Your task to perform on an android device: turn off data saver in the chrome app Image 0: 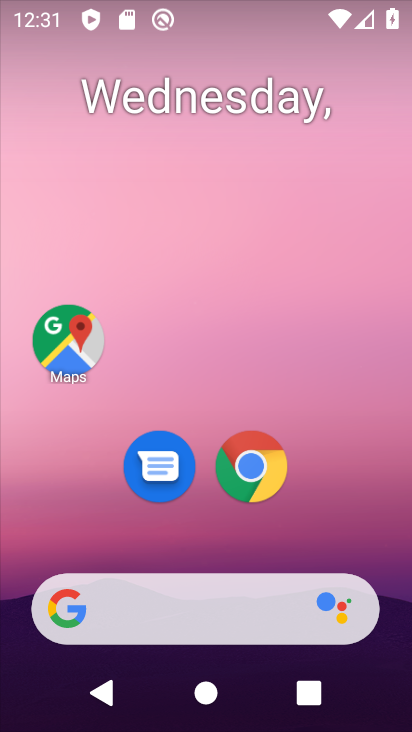
Step 0: press home button
Your task to perform on an android device: turn off data saver in the chrome app Image 1: 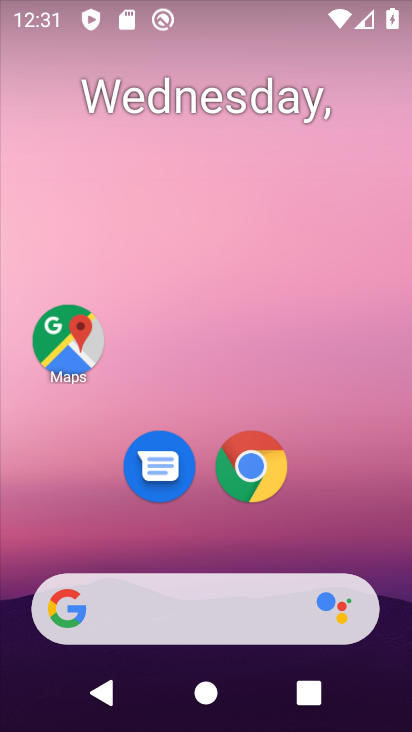
Step 1: drag from (363, 516) to (217, 122)
Your task to perform on an android device: turn off data saver in the chrome app Image 2: 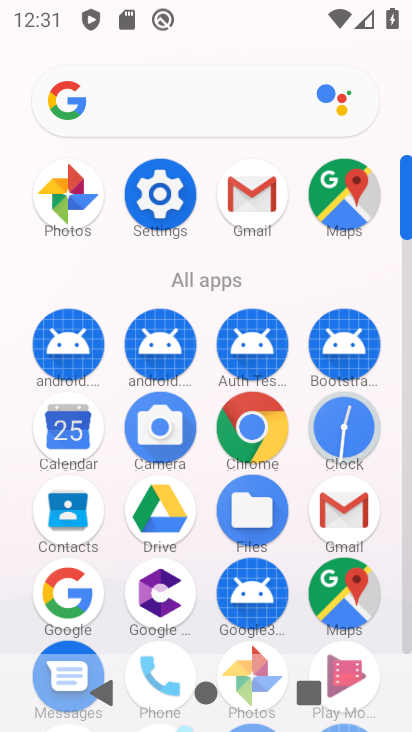
Step 2: click (401, 644)
Your task to perform on an android device: turn off data saver in the chrome app Image 3: 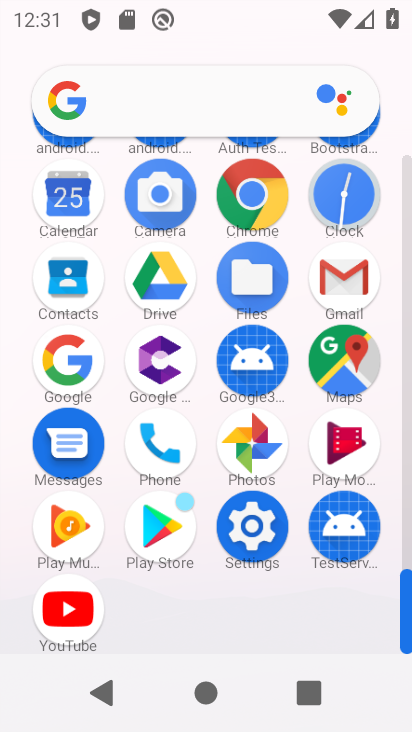
Step 3: click (229, 180)
Your task to perform on an android device: turn off data saver in the chrome app Image 4: 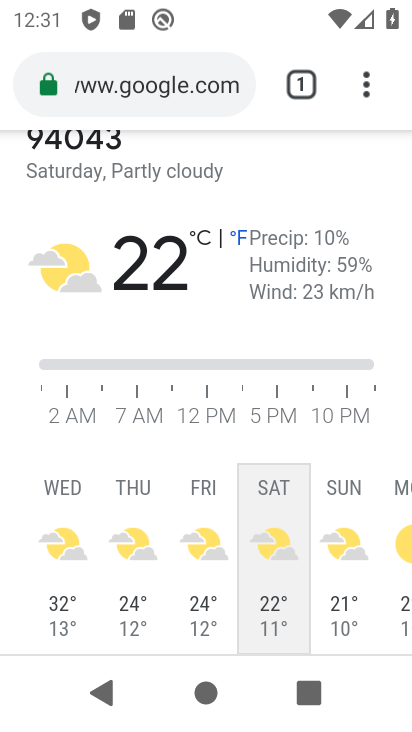
Step 4: click (176, 86)
Your task to perform on an android device: turn off data saver in the chrome app Image 5: 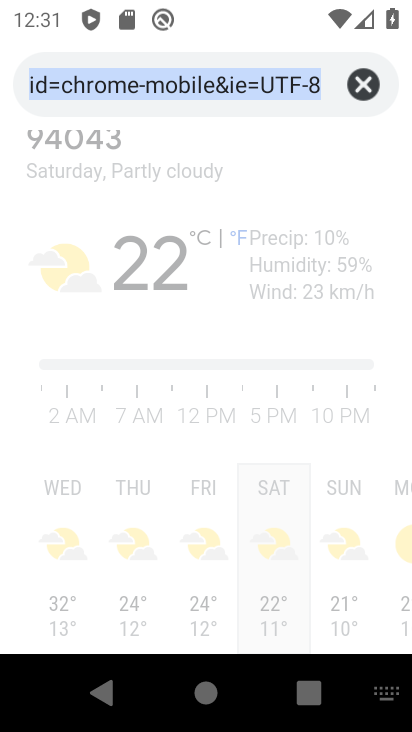
Step 5: click (350, 82)
Your task to perform on an android device: turn off data saver in the chrome app Image 6: 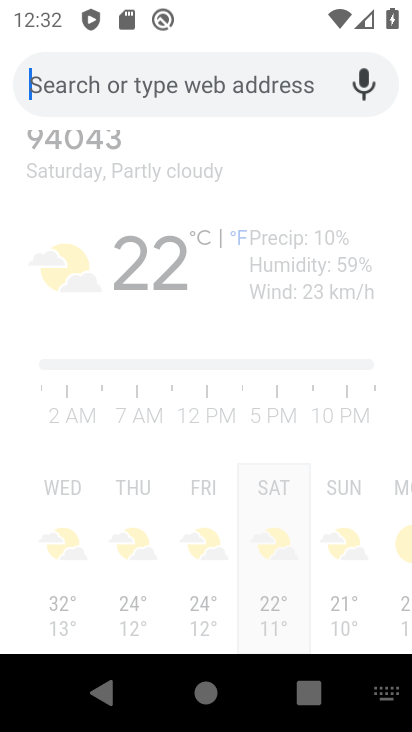
Step 6: click (121, 483)
Your task to perform on an android device: turn off data saver in the chrome app Image 7: 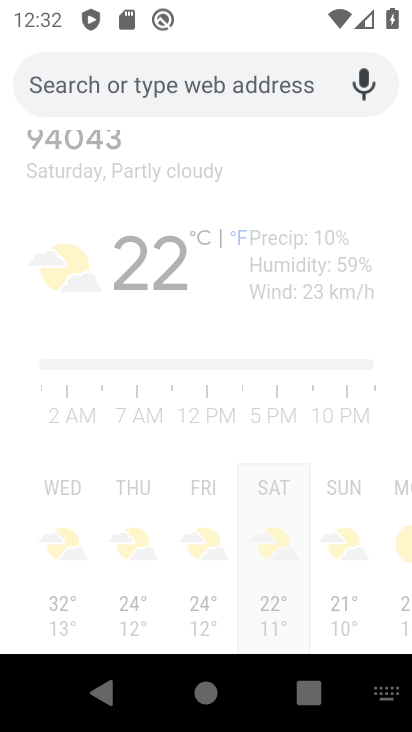
Step 7: drag from (410, 259) to (121, 483)
Your task to perform on an android device: turn off data saver in the chrome app Image 8: 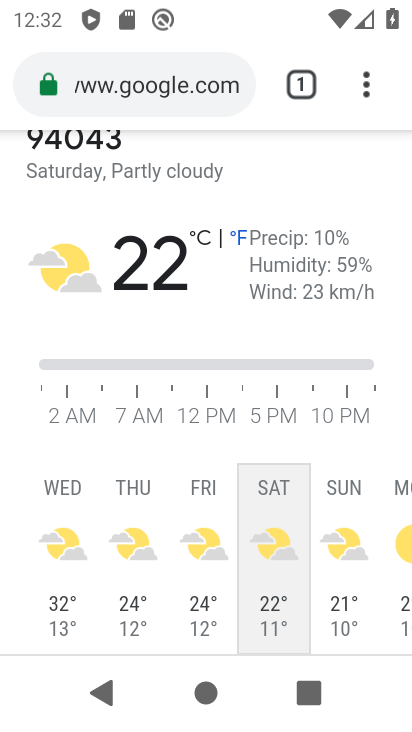
Step 8: click (363, 83)
Your task to perform on an android device: turn off data saver in the chrome app Image 9: 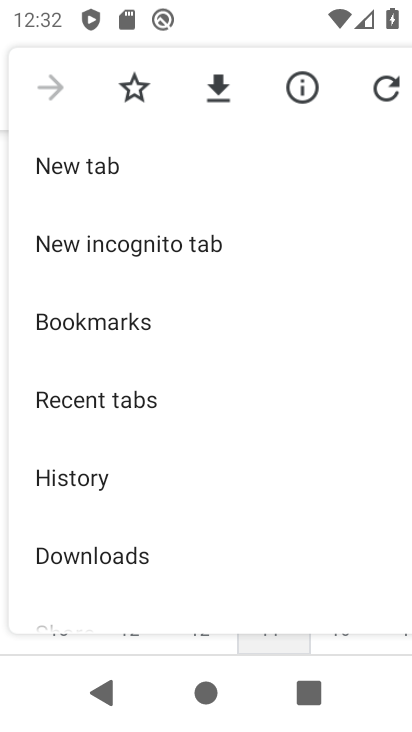
Step 9: drag from (301, 485) to (183, 164)
Your task to perform on an android device: turn off data saver in the chrome app Image 10: 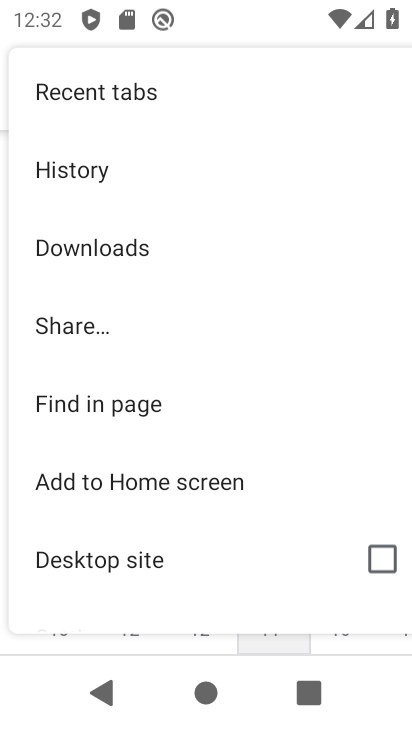
Step 10: drag from (85, 485) to (61, 318)
Your task to perform on an android device: turn off data saver in the chrome app Image 11: 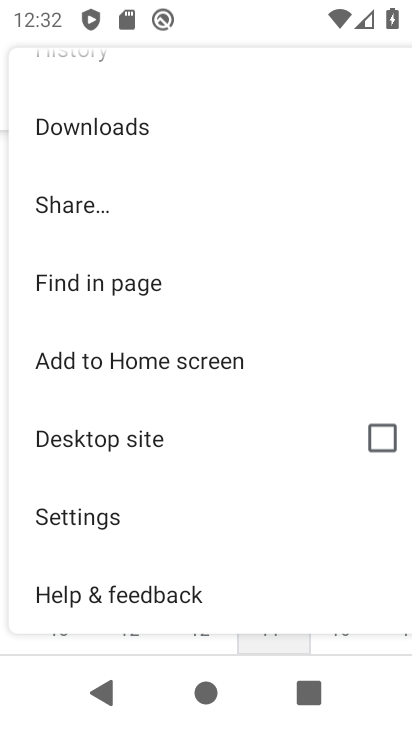
Step 11: drag from (105, 445) to (103, 301)
Your task to perform on an android device: turn off data saver in the chrome app Image 12: 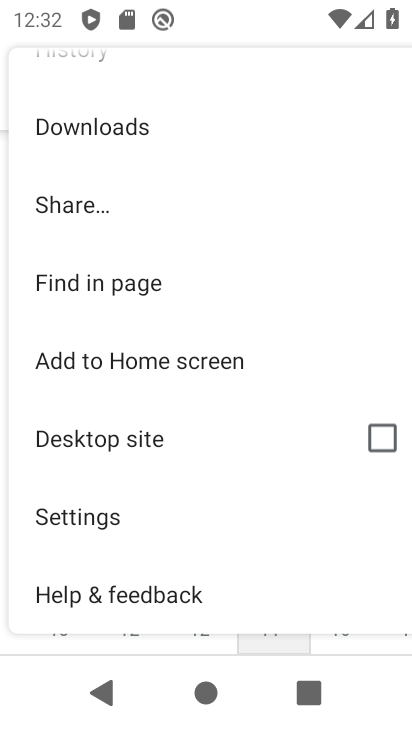
Step 12: click (66, 508)
Your task to perform on an android device: turn off data saver in the chrome app Image 13: 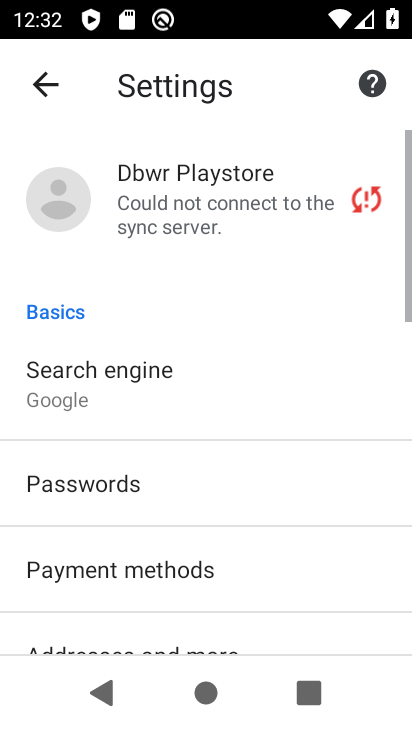
Step 13: drag from (66, 508) to (17, 189)
Your task to perform on an android device: turn off data saver in the chrome app Image 14: 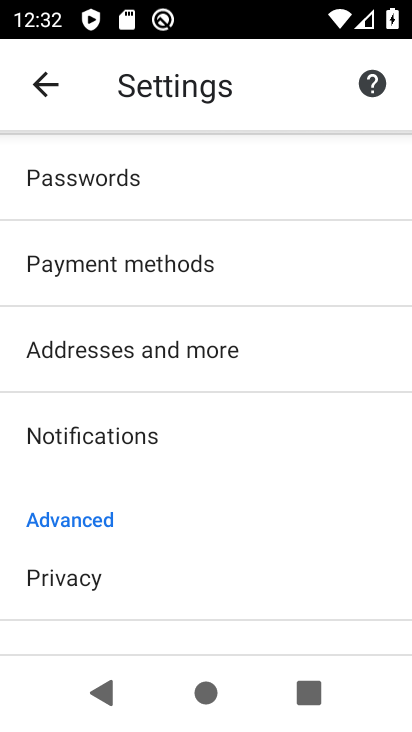
Step 14: drag from (106, 443) to (116, 224)
Your task to perform on an android device: turn off data saver in the chrome app Image 15: 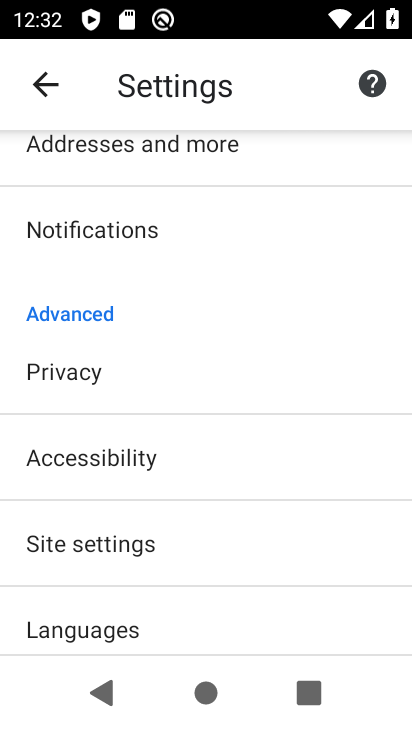
Step 15: drag from (182, 475) to (162, 291)
Your task to perform on an android device: turn off data saver in the chrome app Image 16: 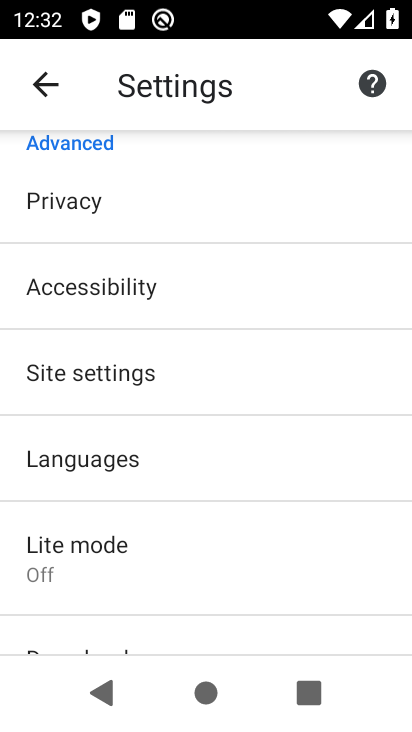
Step 16: click (110, 548)
Your task to perform on an android device: turn off data saver in the chrome app Image 17: 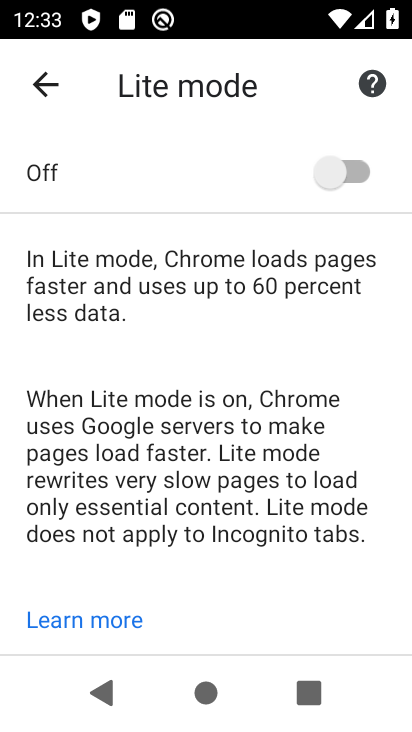
Step 17: task complete